Your task to perform on an android device: toggle pop-ups in chrome Image 0: 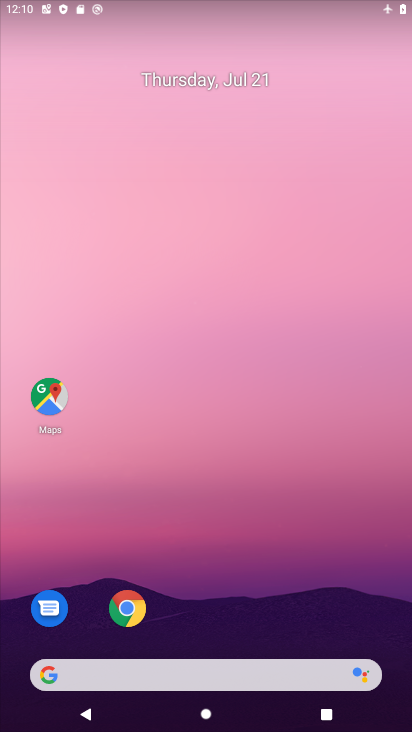
Step 0: drag from (399, 616) to (192, 63)
Your task to perform on an android device: toggle pop-ups in chrome Image 1: 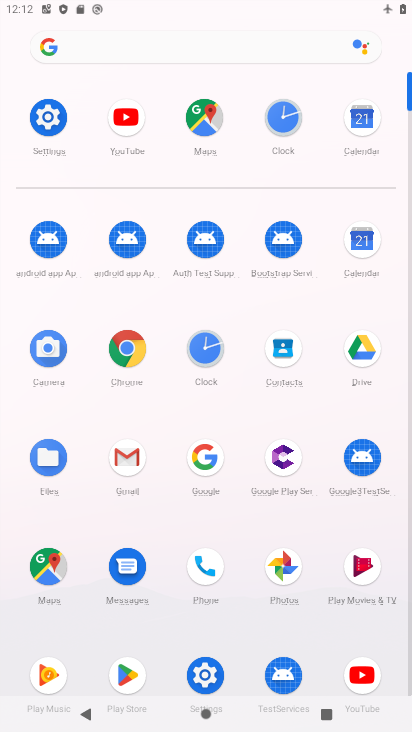
Step 1: click (125, 330)
Your task to perform on an android device: toggle pop-ups in chrome Image 2: 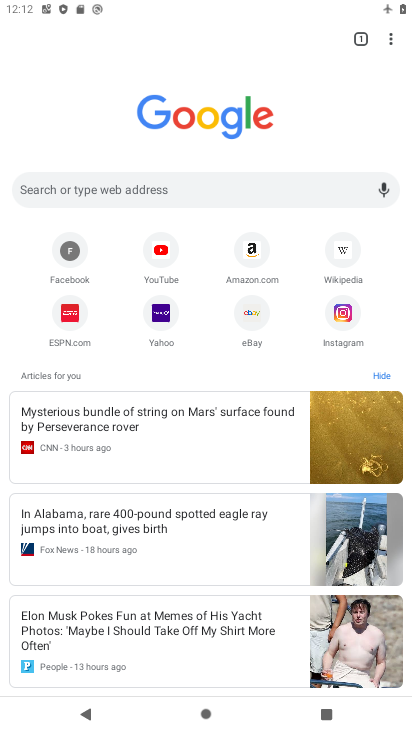
Step 2: click (395, 27)
Your task to perform on an android device: toggle pop-ups in chrome Image 3: 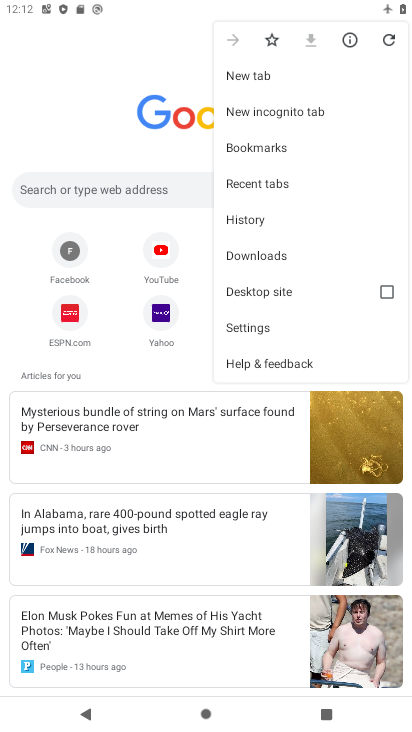
Step 3: click (269, 331)
Your task to perform on an android device: toggle pop-ups in chrome Image 4: 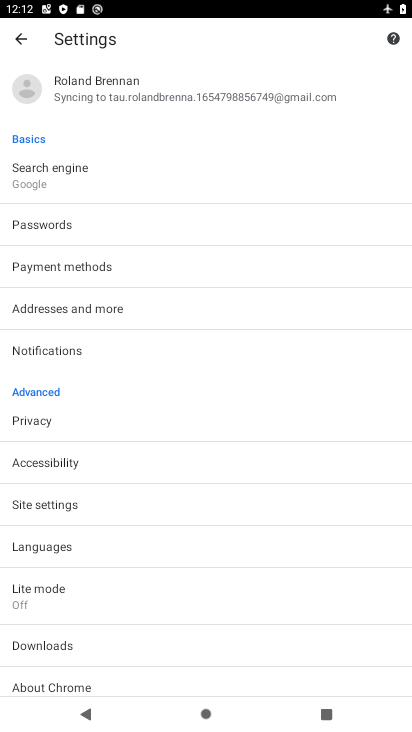
Step 4: click (78, 504)
Your task to perform on an android device: toggle pop-ups in chrome Image 5: 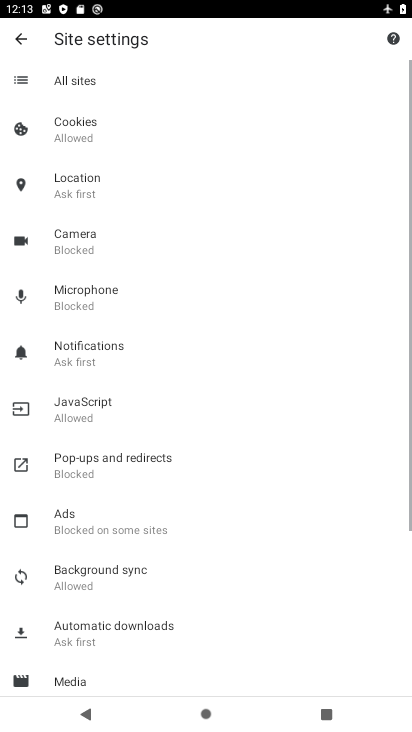
Step 5: click (132, 476)
Your task to perform on an android device: toggle pop-ups in chrome Image 6: 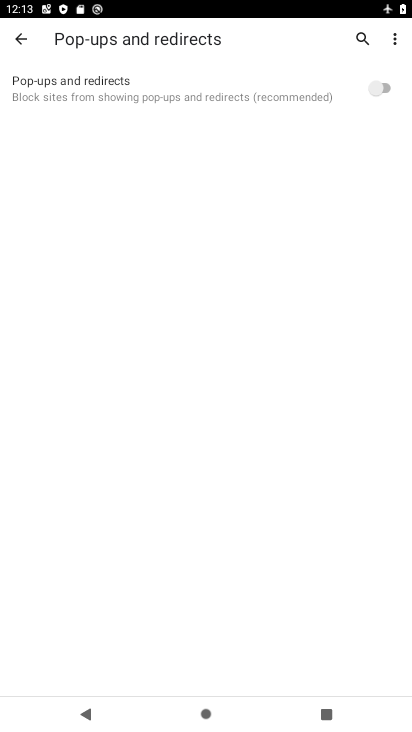
Step 6: click (362, 79)
Your task to perform on an android device: toggle pop-ups in chrome Image 7: 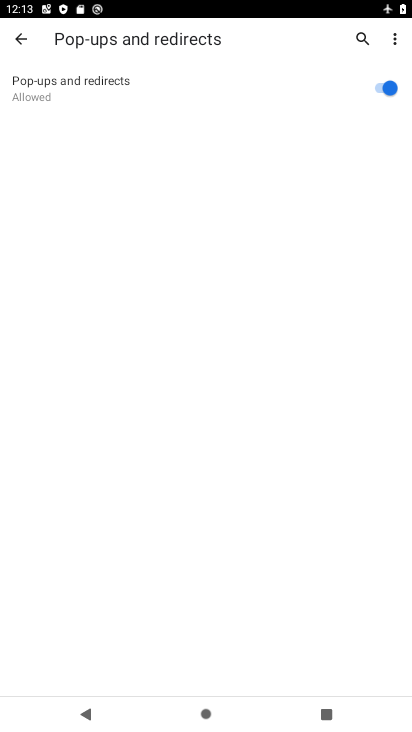
Step 7: task complete